Your task to perform on an android device: Search for Italian restaurants on Maps Image 0: 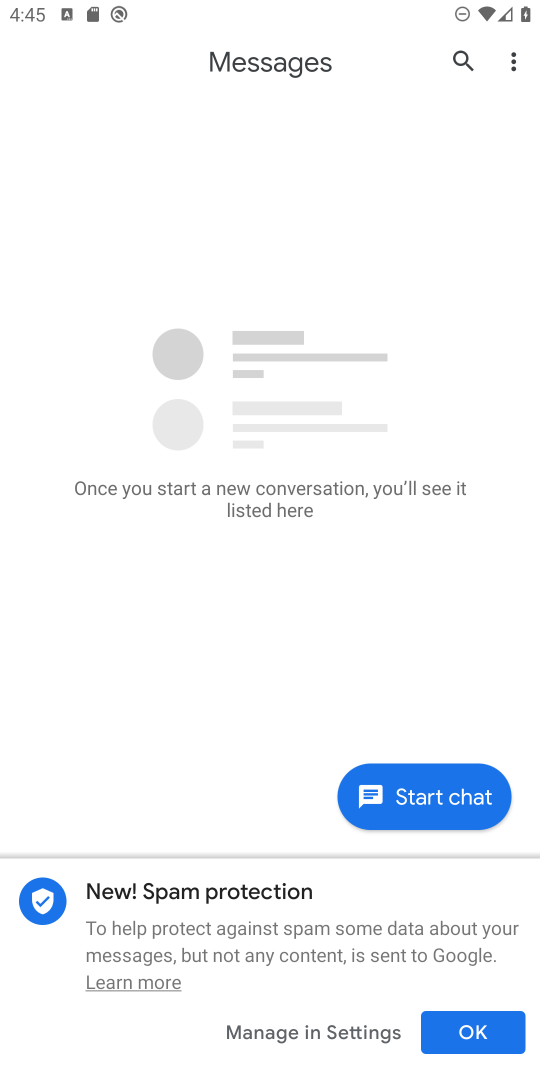
Step 0: press home button
Your task to perform on an android device: Search for Italian restaurants on Maps Image 1: 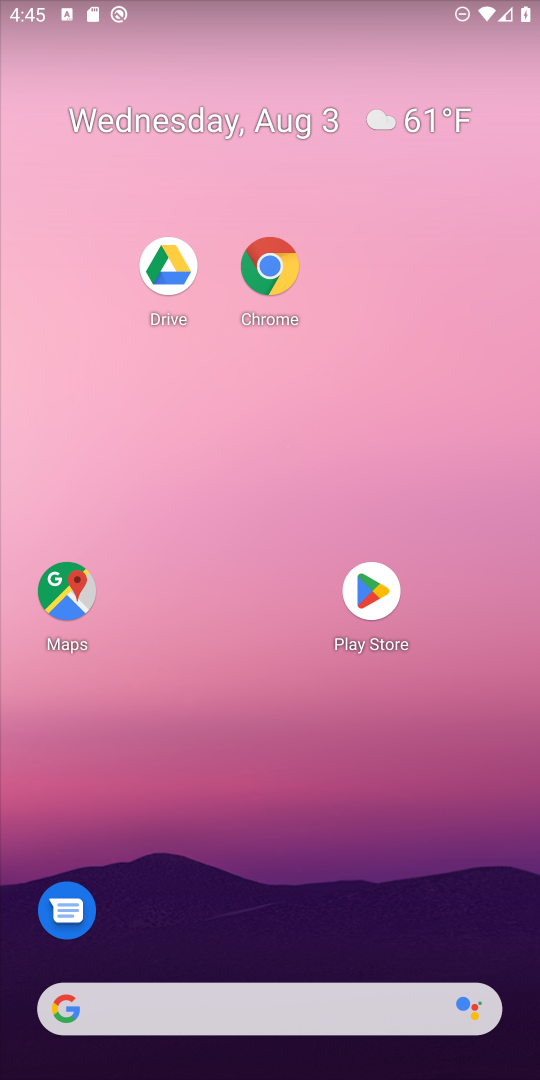
Step 1: drag from (433, 559) to (402, 6)
Your task to perform on an android device: Search for Italian restaurants on Maps Image 2: 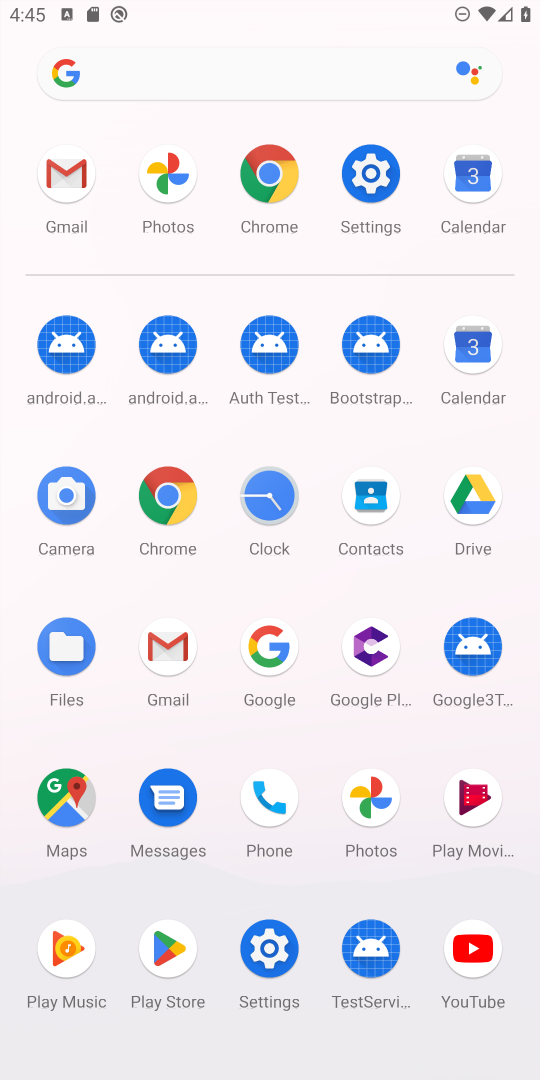
Step 2: click (39, 794)
Your task to perform on an android device: Search for Italian restaurants on Maps Image 3: 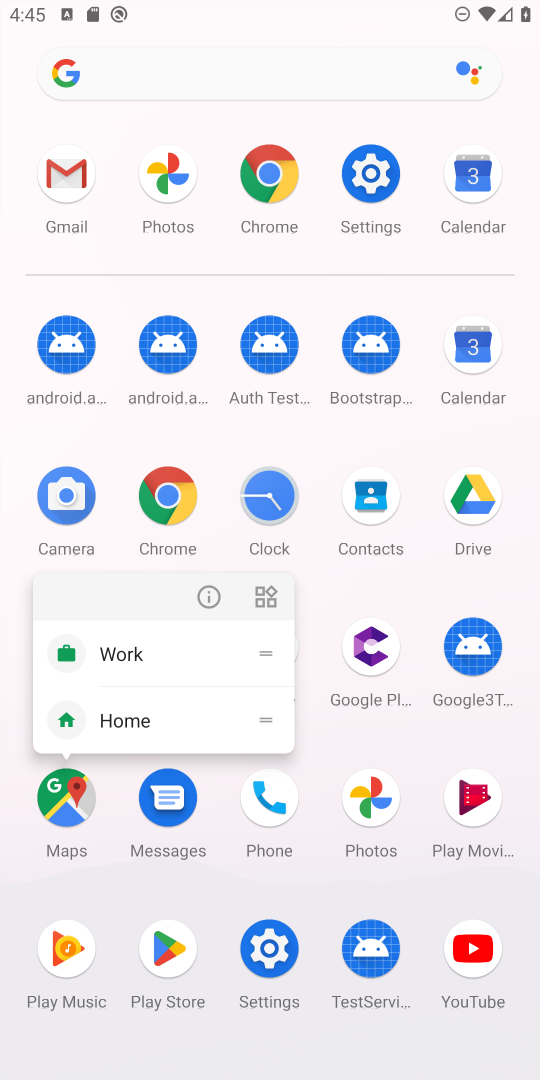
Step 3: click (52, 793)
Your task to perform on an android device: Search for Italian restaurants on Maps Image 4: 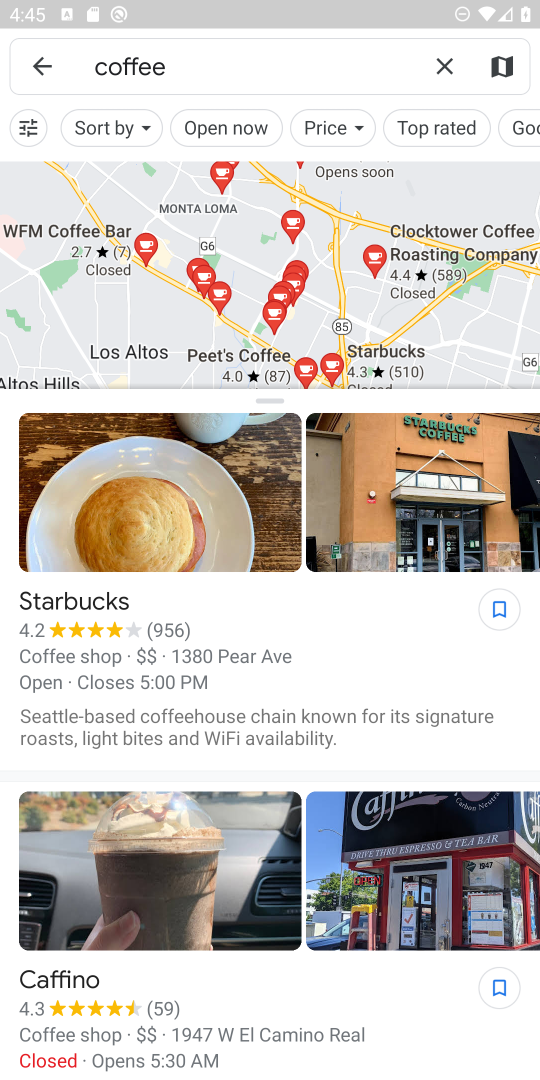
Step 4: click (435, 68)
Your task to perform on an android device: Search for Italian restaurants on Maps Image 5: 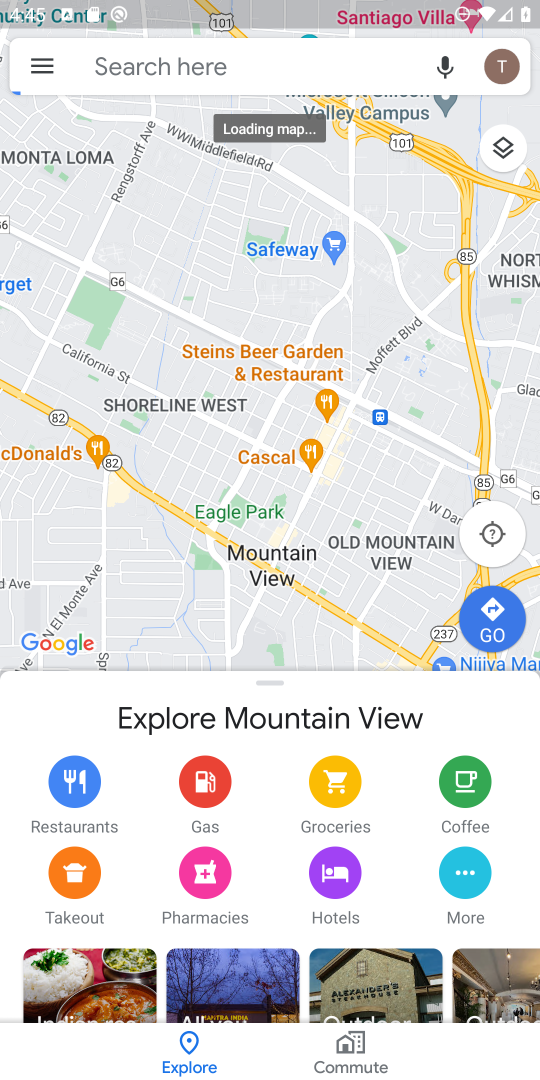
Step 5: click (357, 67)
Your task to perform on an android device: Search for Italian restaurants on Maps Image 6: 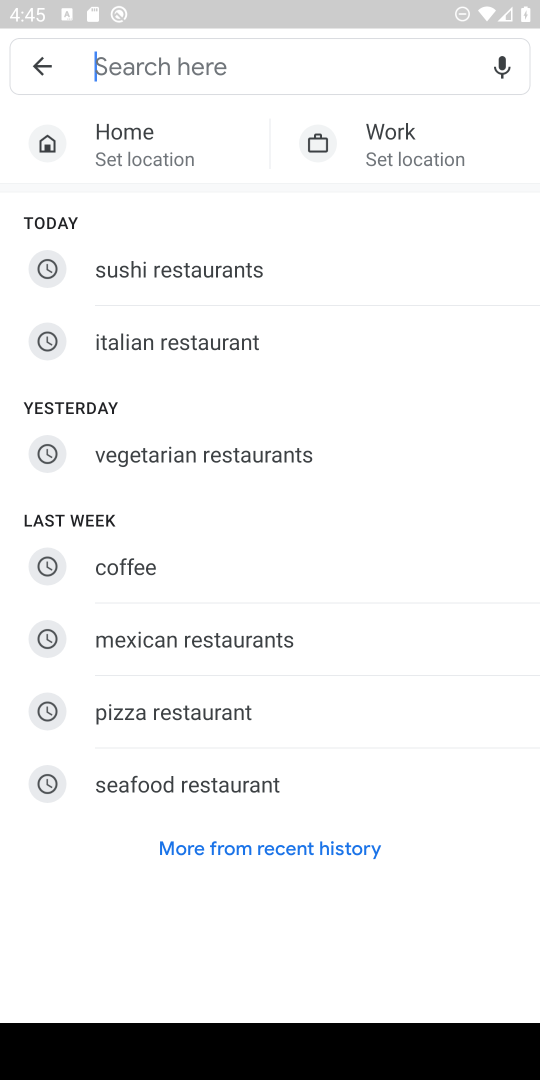
Step 6: click (144, 330)
Your task to perform on an android device: Search for Italian restaurants on Maps Image 7: 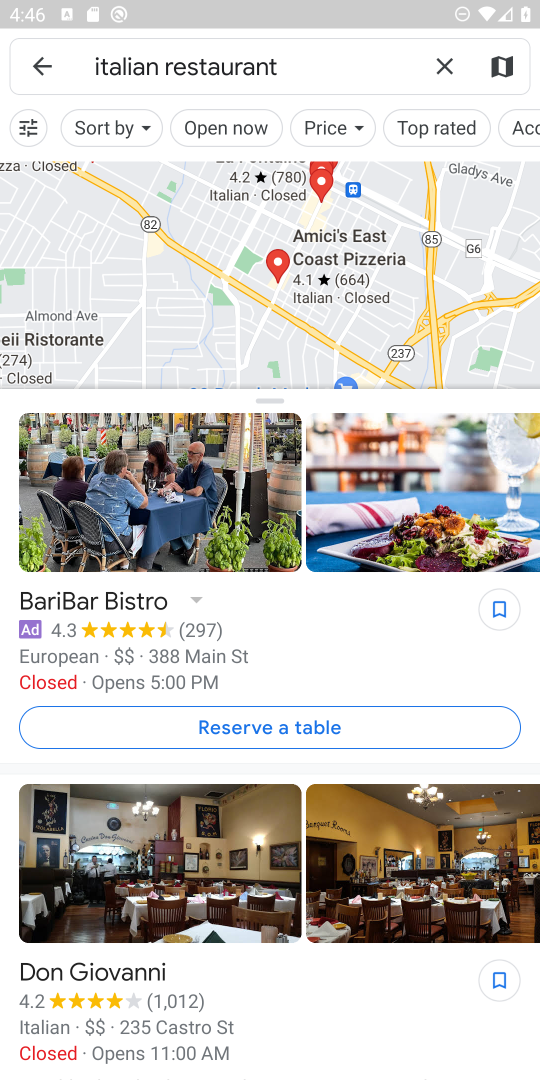
Step 7: task complete